Your task to perform on an android device: Go to settings Image 0: 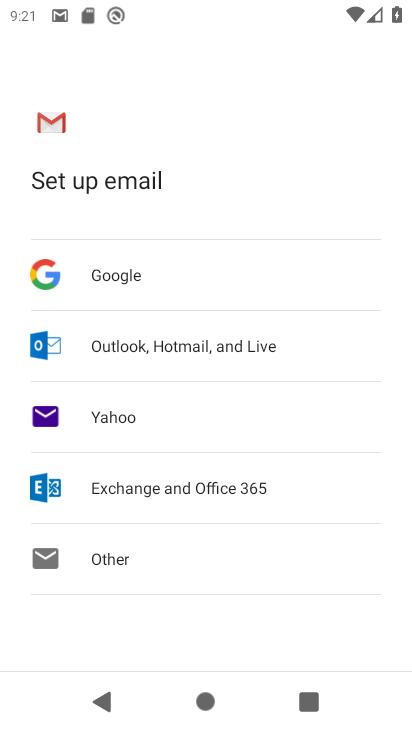
Step 0: press home button
Your task to perform on an android device: Go to settings Image 1: 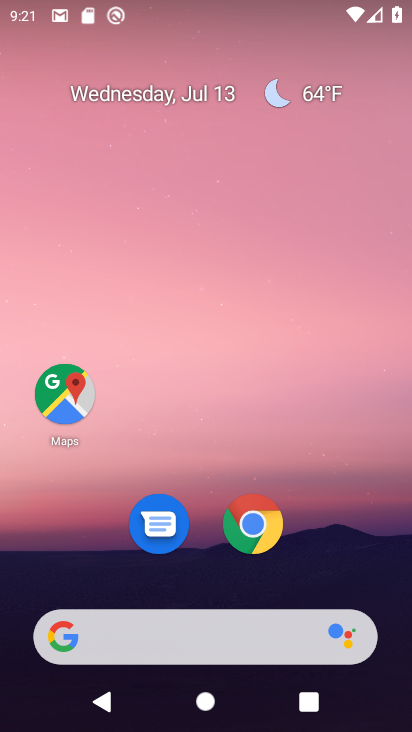
Step 1: drag from (227, 584) to (149, 9)
Your task to perform on an android device: Go to settings Image 2: 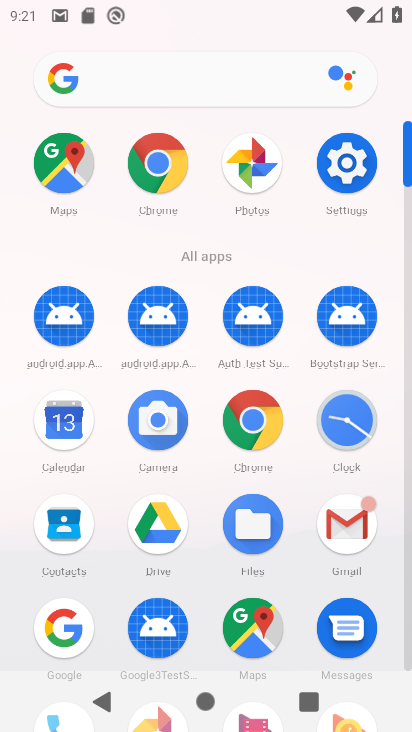
Step 2: click (368, 167)
Your task to perform on an android device: Go to settings Image 3: 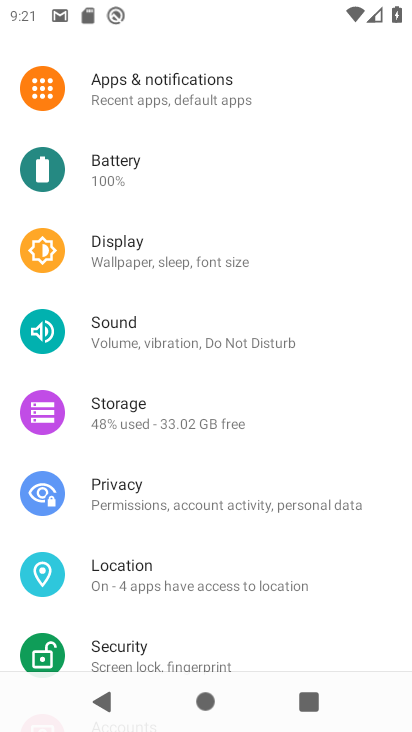
Step 3: task complete